Your task to perform on an android device: set the stopwatch Image 0: 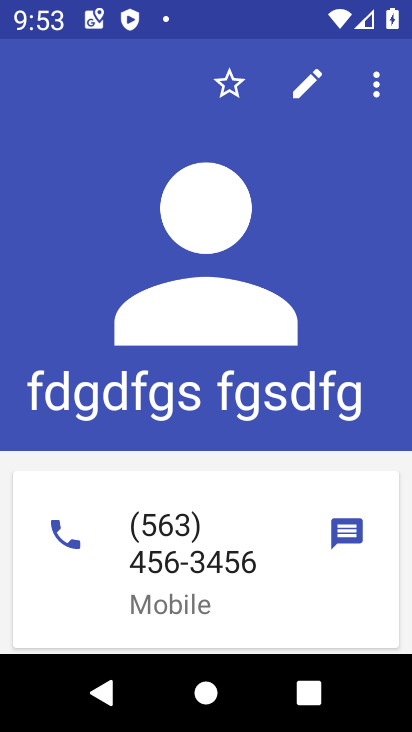
Step 0: press home button
Your task to perform on an android device: set the stopwatch Image 1: 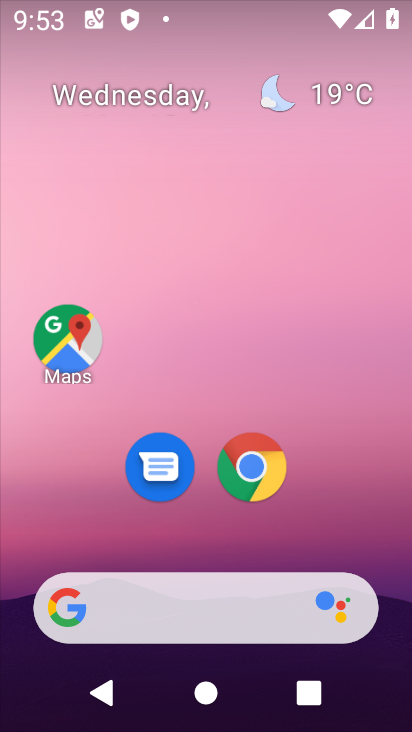
Step 1: drag from (335, 495) to (225, 14)
Your task to perform on an android device: set the stopwatch Image 2: 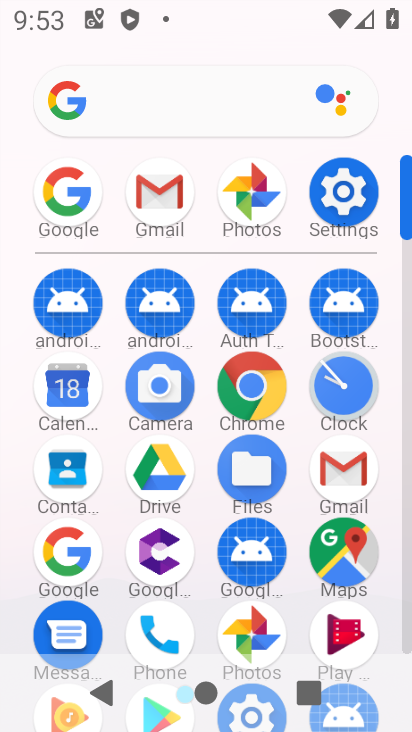
Step 2: click (344, 372)
Your task to perform on an android device: set the stopwatch Image 3: 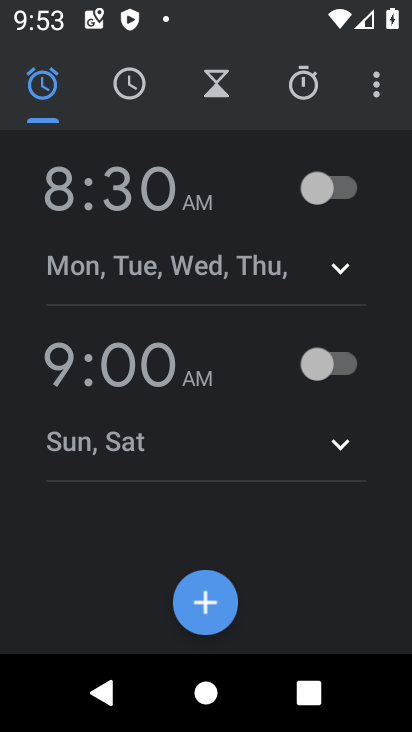
Step 3: click (304, 74)
Your task to perform on an android device: set the stopwatch Image 4: 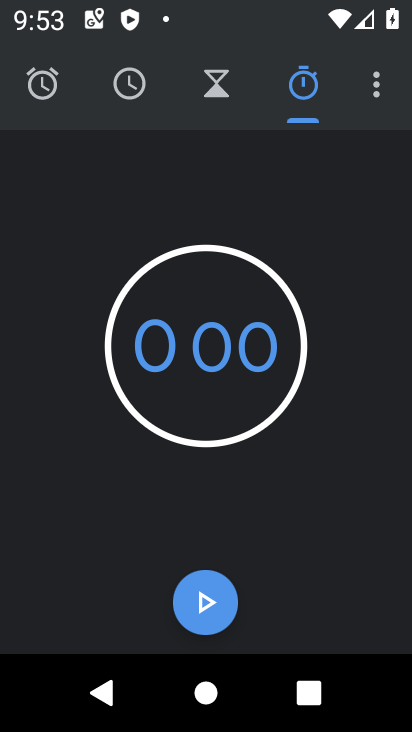
Step 4: click (213, 597)
Your task to perform on an android device: set the stopwatch Image 5: 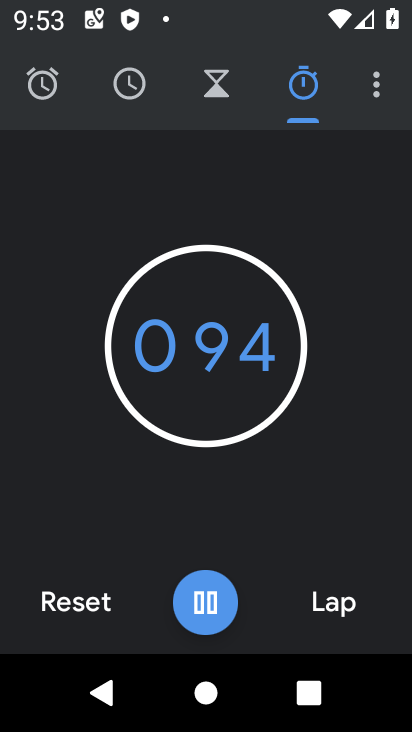
Step 5: task complete